Your task to perform on an android device: Clear the shopping cart on target. Image 0: 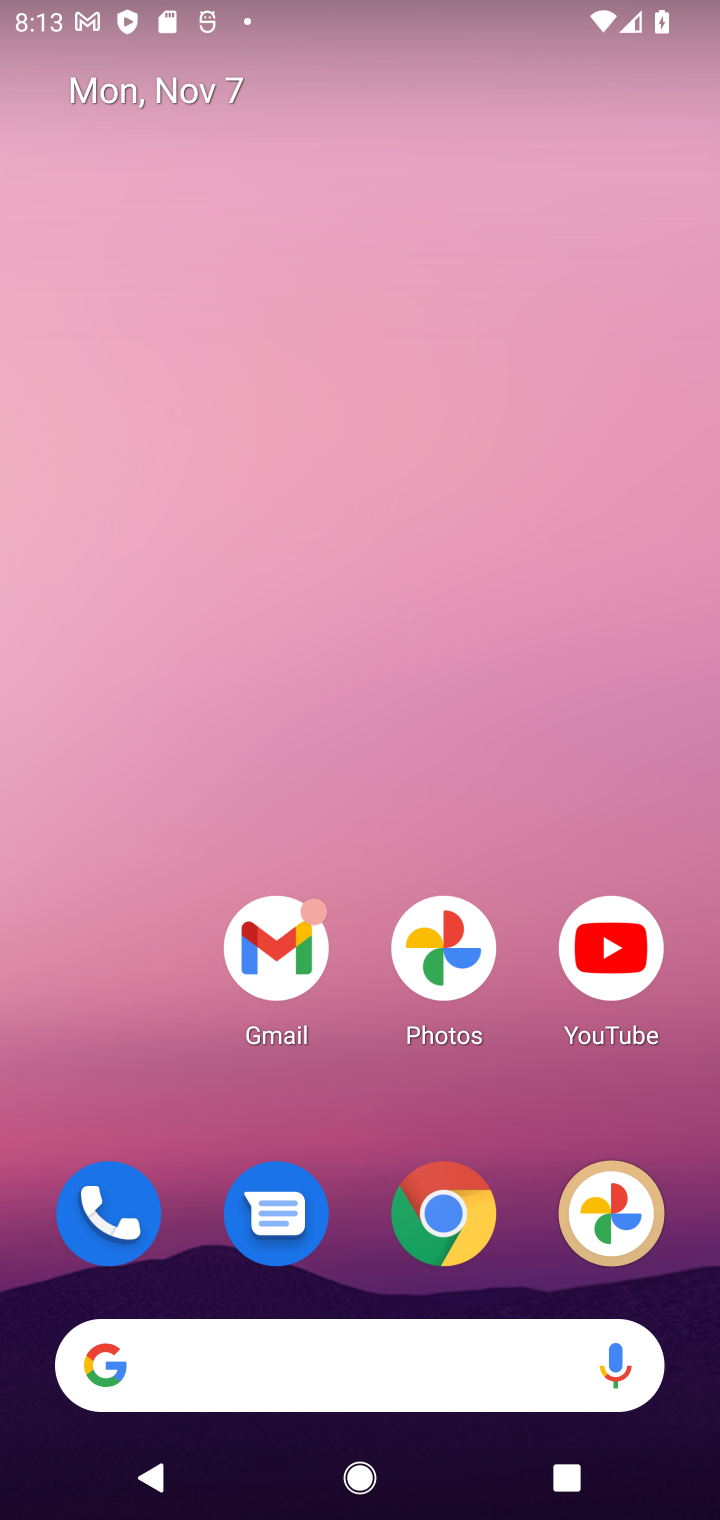
Step 0: click (445, 1219)
Your task to perform on an android device: Clear the shopping cart on target. Image 1: 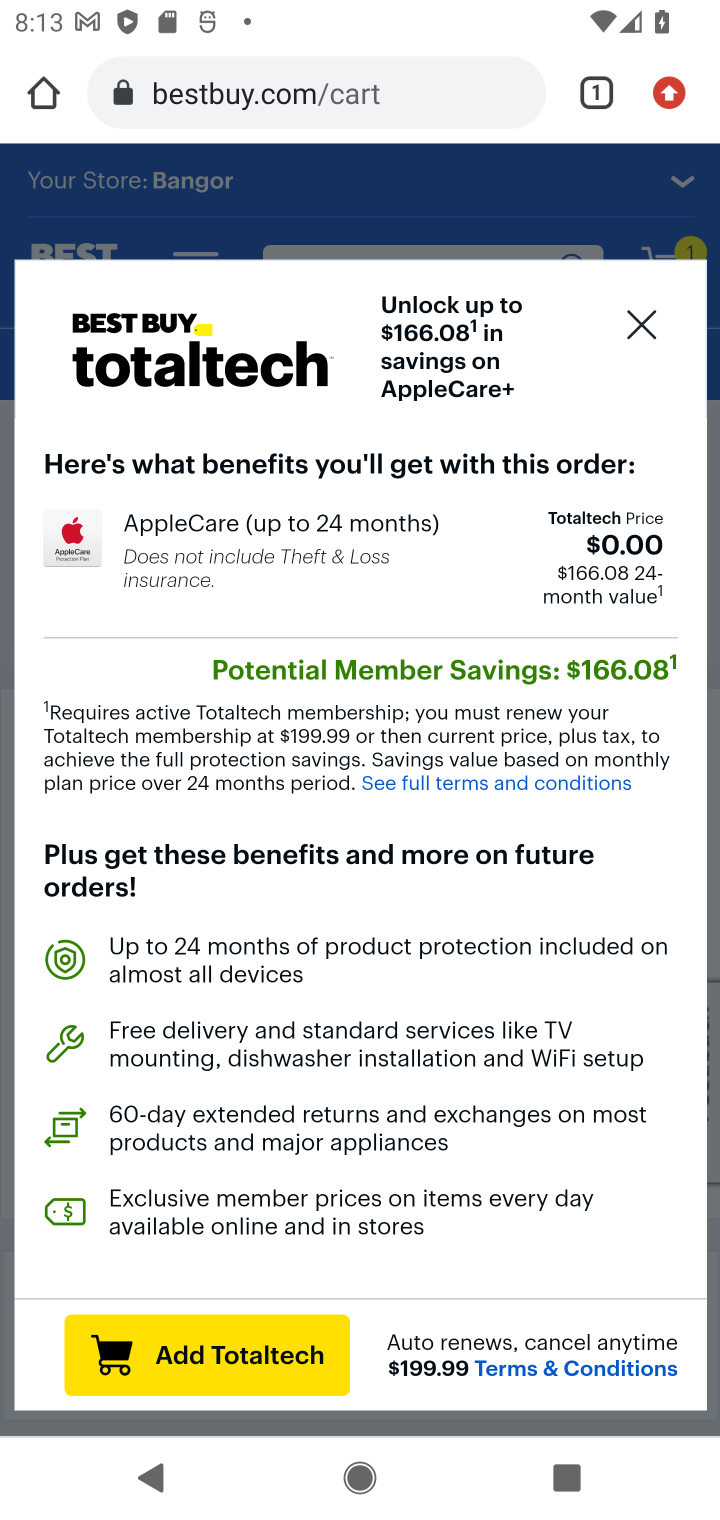
Step 1: click (424, 103)
Your task to perform on an android device: Clear the shopping cart on target. Image 2: 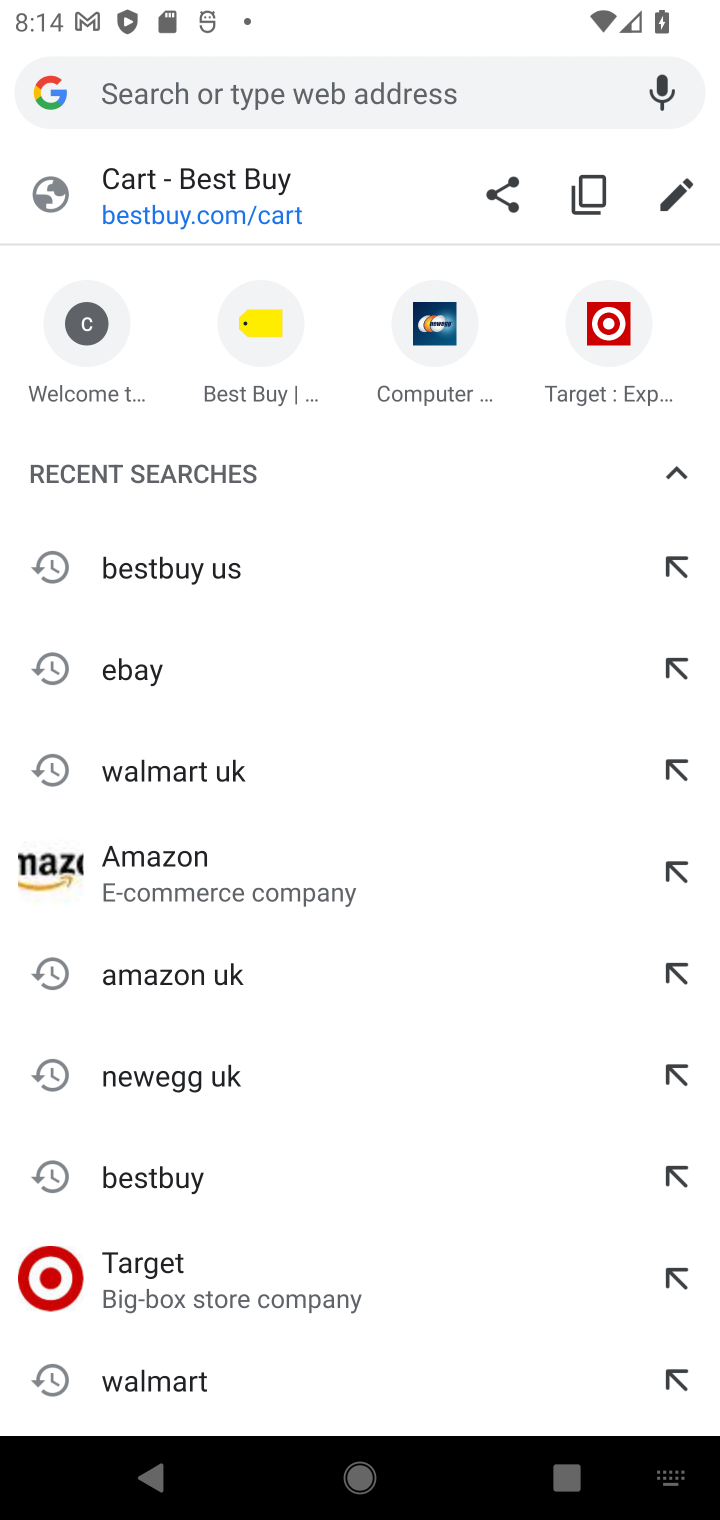
Step 2: click (254, 94)
Your task to perform on an android device: Clear the shopping cart on target. Image 3: 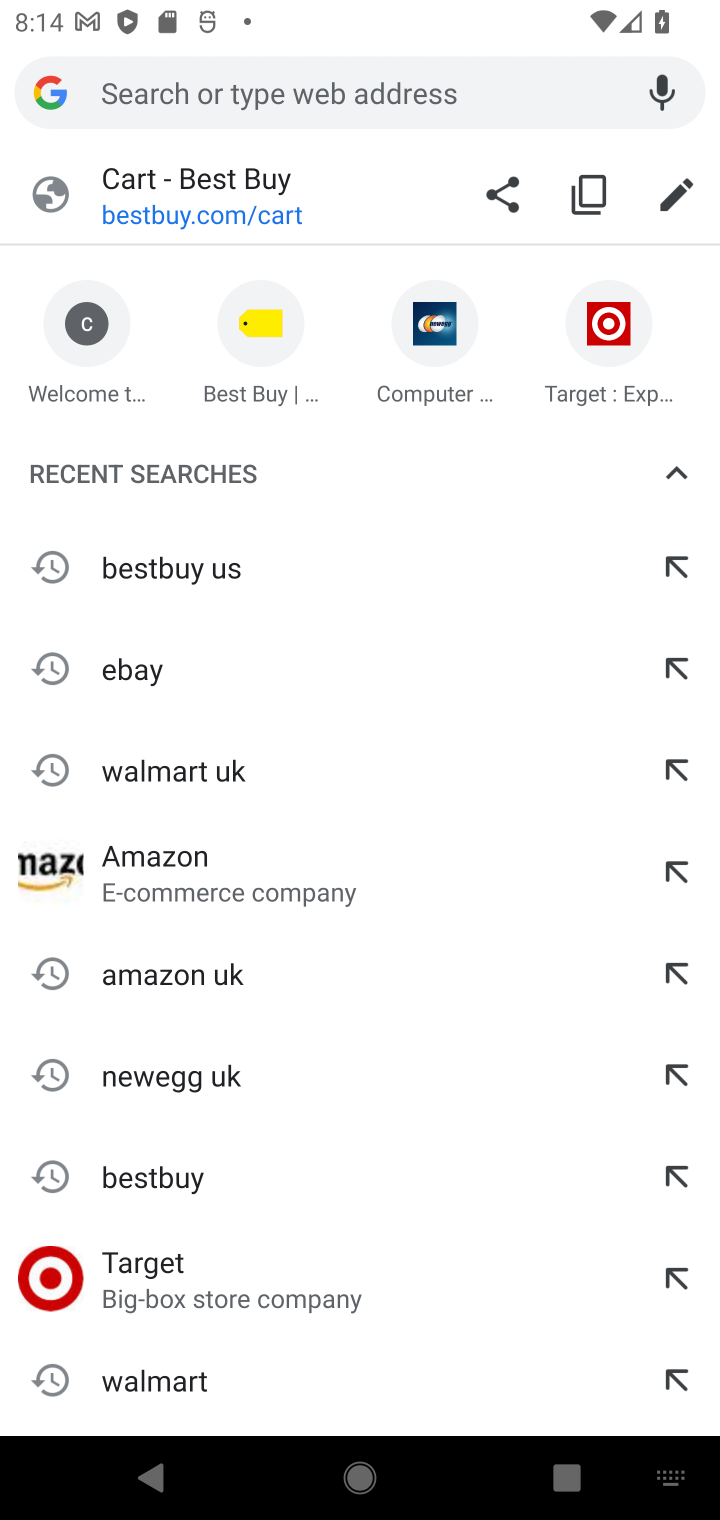
Step 3: click (583, 352)
Your task to perform on an android device: Clear the shopping cart on target. Image 4: 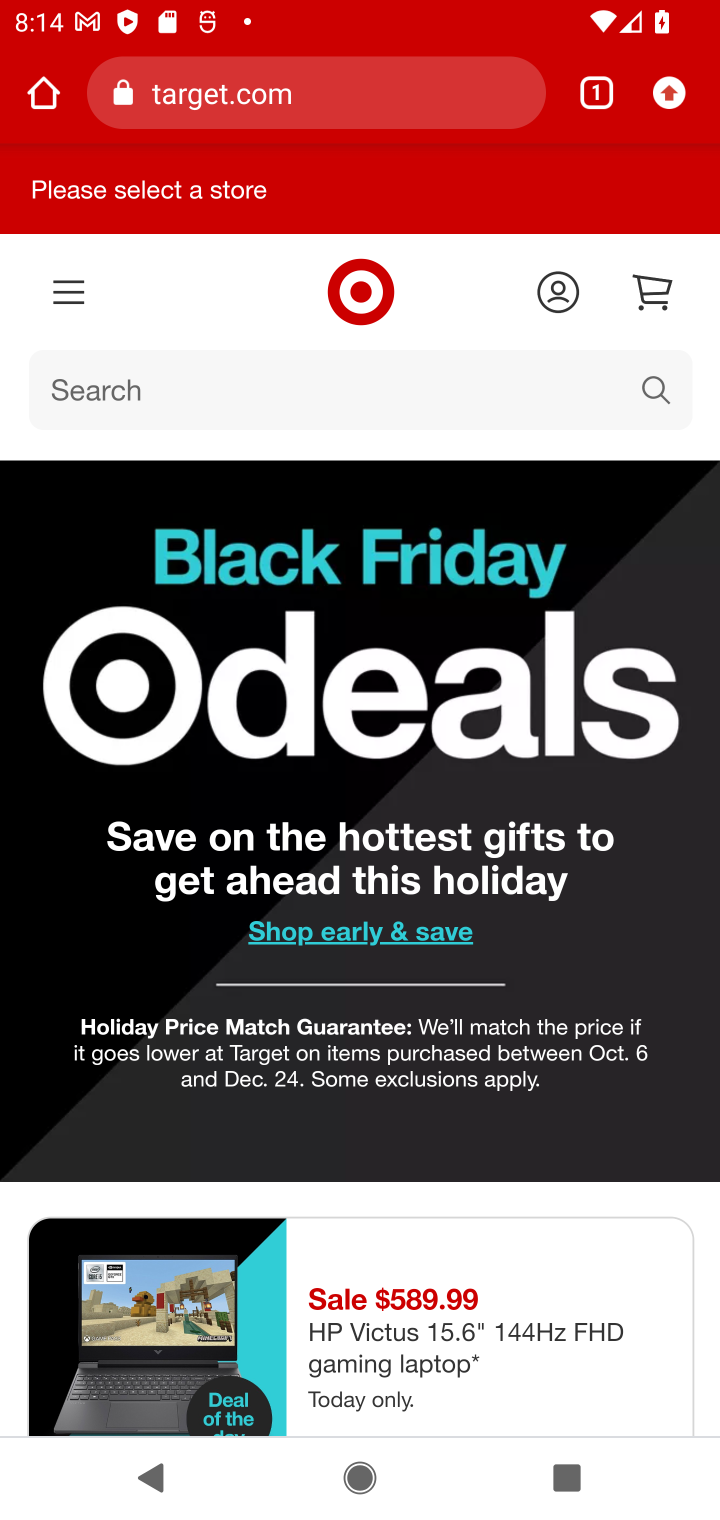
Step 4: click (649, 285)
Your task to perform on an android device: Clear the shopping cart on target. Image 5: 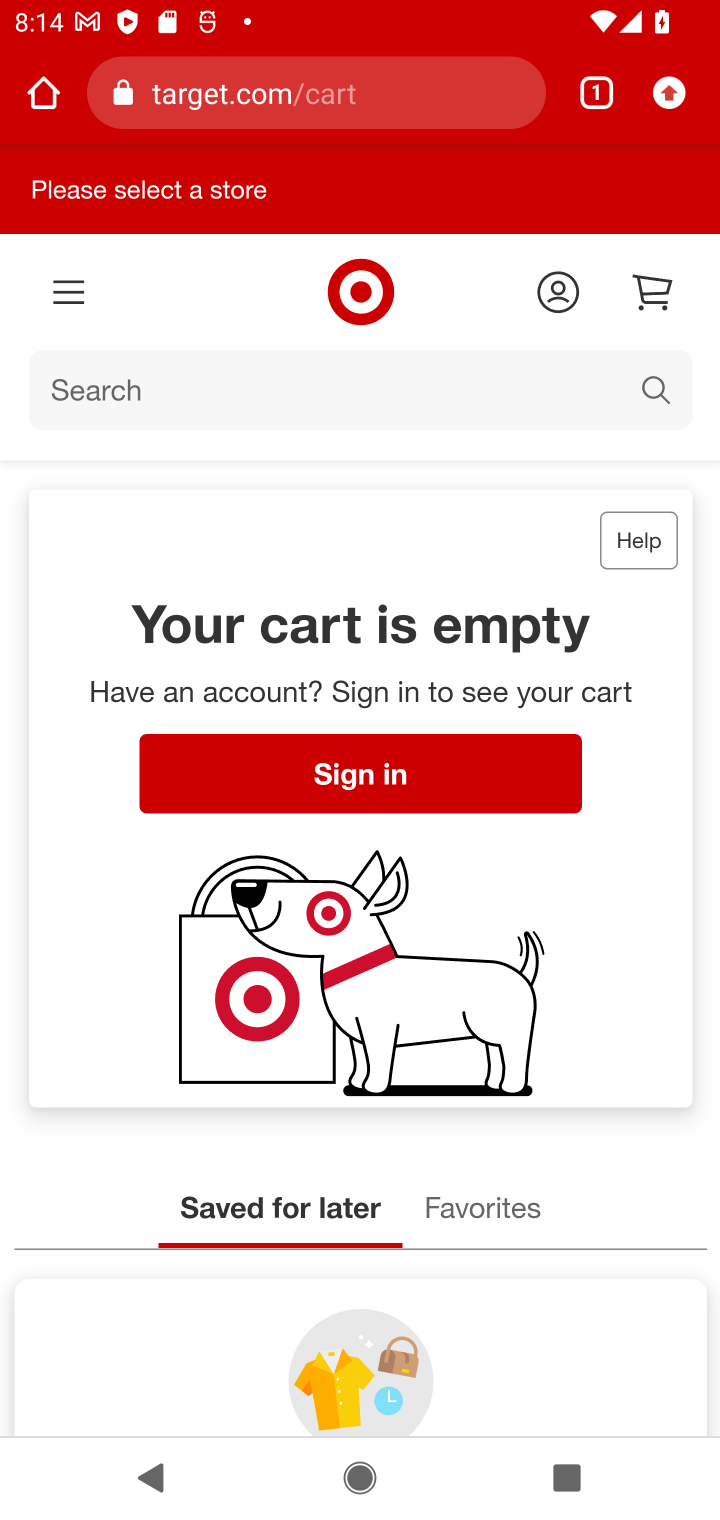
Step 5: task complete